Your task to perform on an android device: Open ESPN.com Image 0: 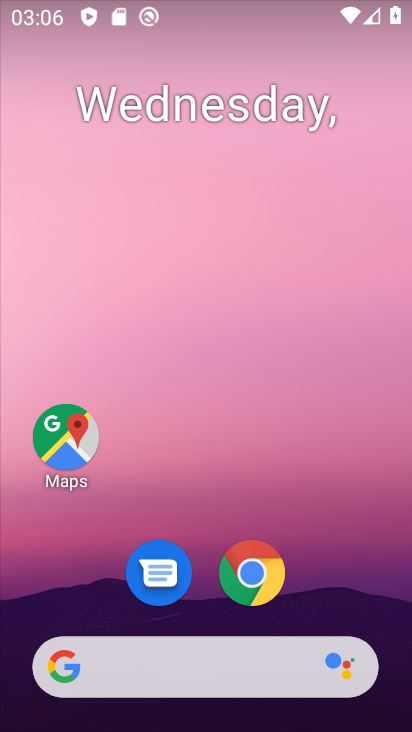
Step 0: click (258, 572)
Your task to perform on an android device: Open ESPN.com Image 1: 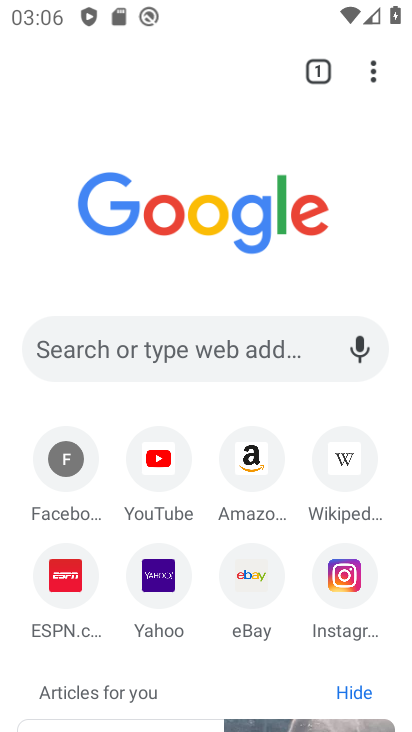
Step 1: click (55, 577)
Your task to perform on an android device: Open ESPN.com Image 2: 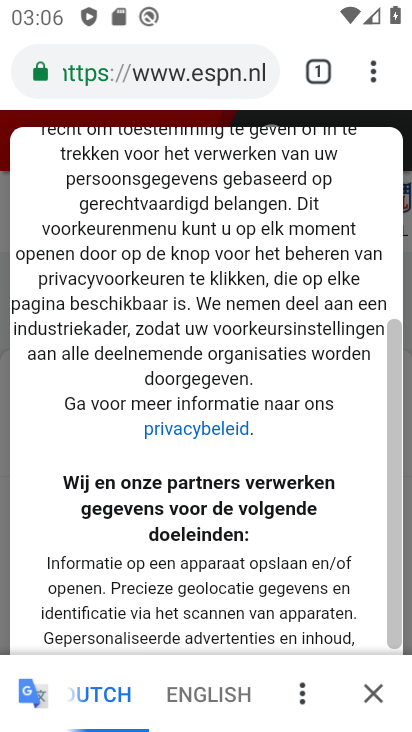
Step 2: drag from (240, 604) to (234, 307)
Your task to perform on an android device: Open ESPN.com Image 3: 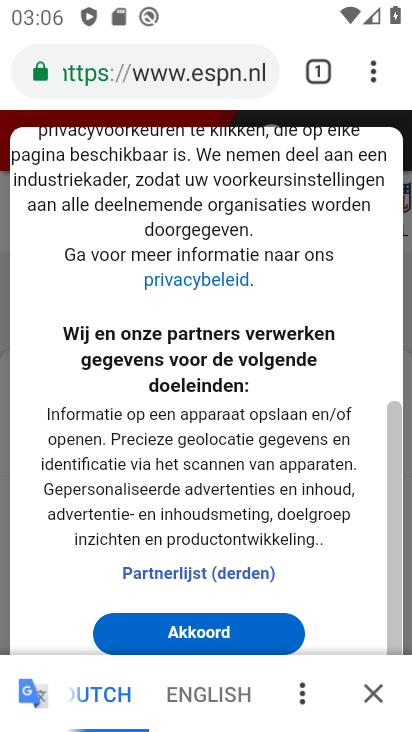
Step 3: click (212, 637)
Your task to perform on an android device: Open ESPN.com Image 4: 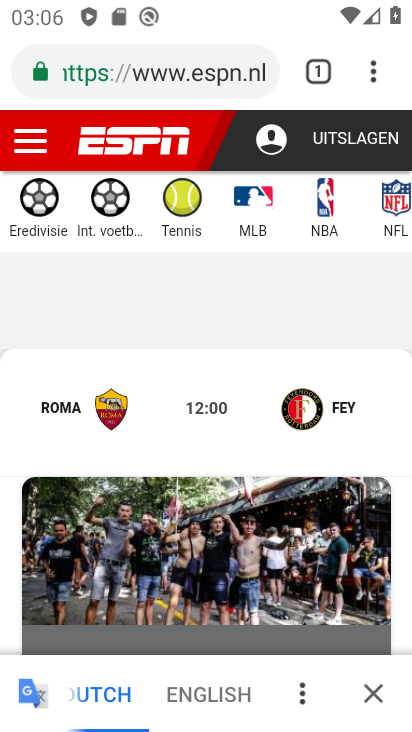
Step 4: task complete